Your task to perform on an android device: turn notification dots off Image 0: 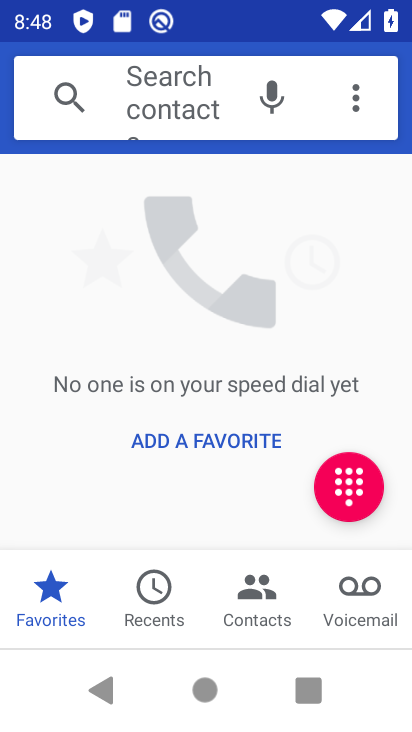
Step 0: press home button
Your task to perform on an android device: turn notification dots off Image 1: 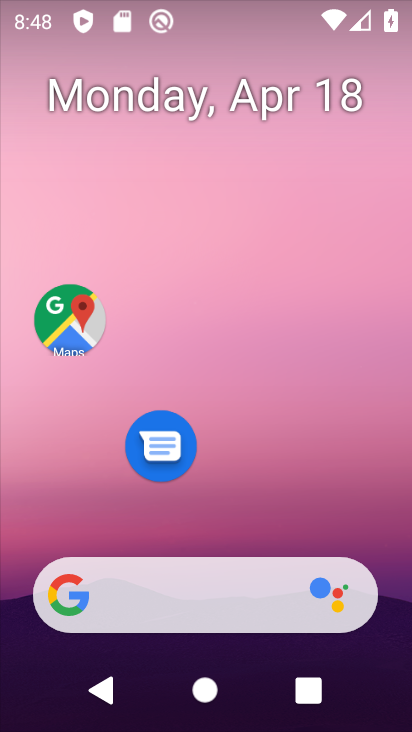
Step 1: drag from (207, 536) to (34, 17)
Your task to perform on an android device: turn notification dots off Image 2: 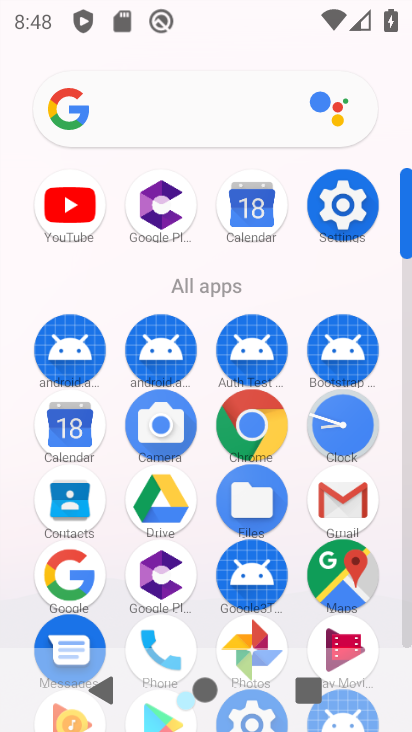
Step 2: click (336, 203)
Your task to perform on an android device: turn notification dots off Image 3: 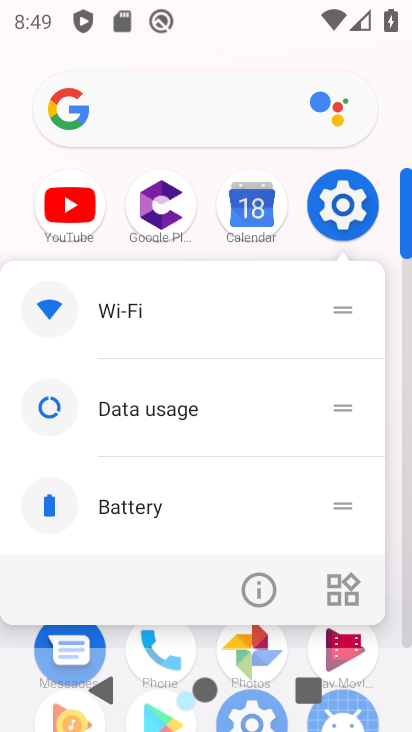
Step 3: click (348, 203)
Your task to perform on an android device: turn notification dots off Image 4: 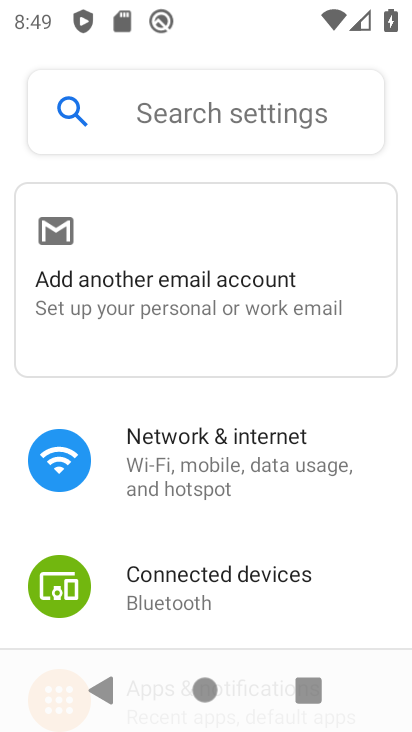
Step 4: drag from (190, 585) to (229, 113)
Your task to perform on an android device: turn notification dots off Image 5: 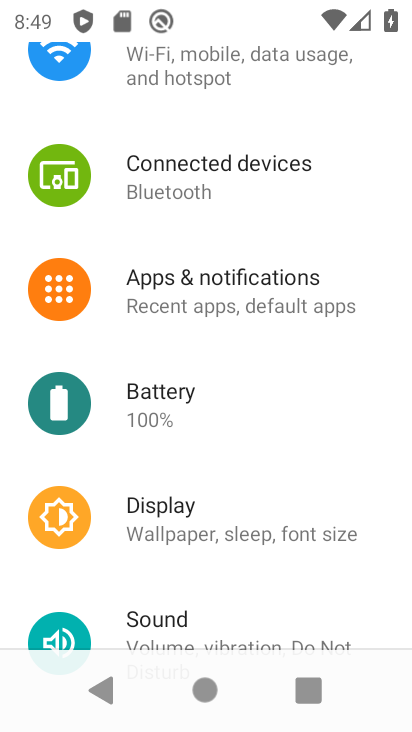
Step 5: click (204, 284)
Your task to perform on an android device: turn notification dots off Image 6: 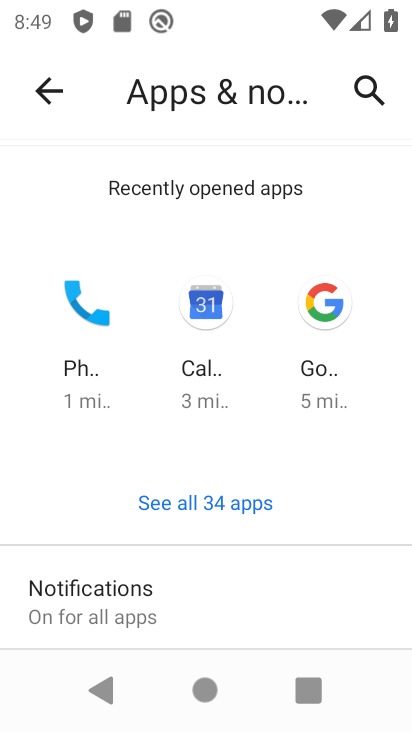
Step 6: click (145, 618)
Your task to perform on an android device: turn notification dots off Image 7: 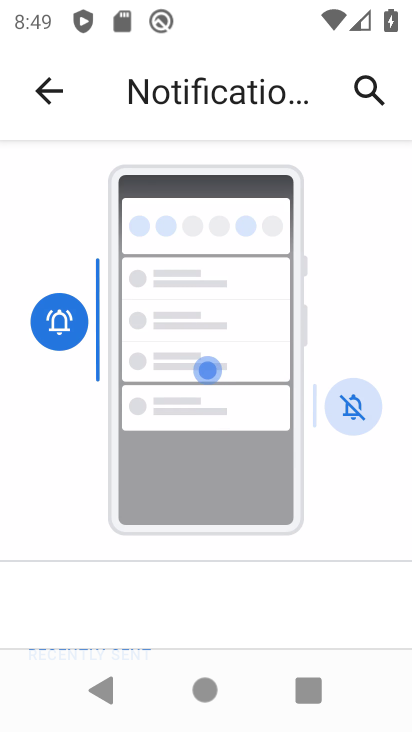
Step 7: drag from (216, 586) to (231, 79)
Your task to perform on an android device: turn notification dots off Image 8: 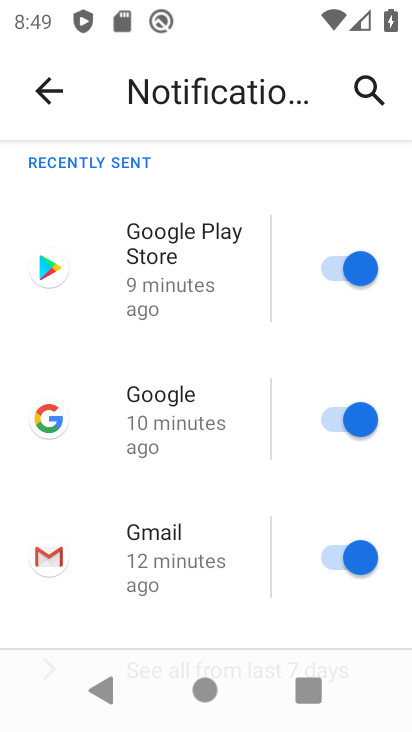
Step 8: drag from (209, 607) to (254, 115)
Your task to perform on an android device: turn notification dots off Image 9: 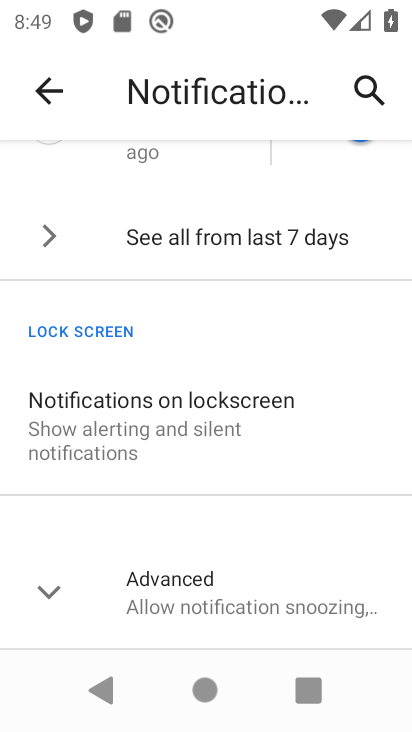
Step 9: click (46, 587)
Your task to perform on an android device: turn notification dots off Image 10: 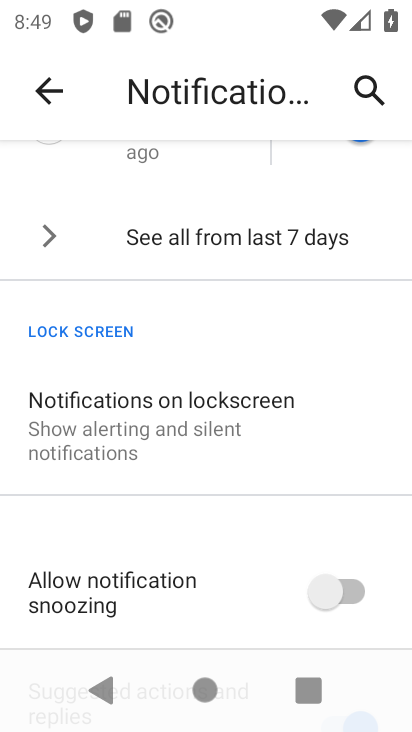
Step 10: drag from (195, 590) to (196, 228)
Your task to perform on an android device: turn notification dots off Image 11: 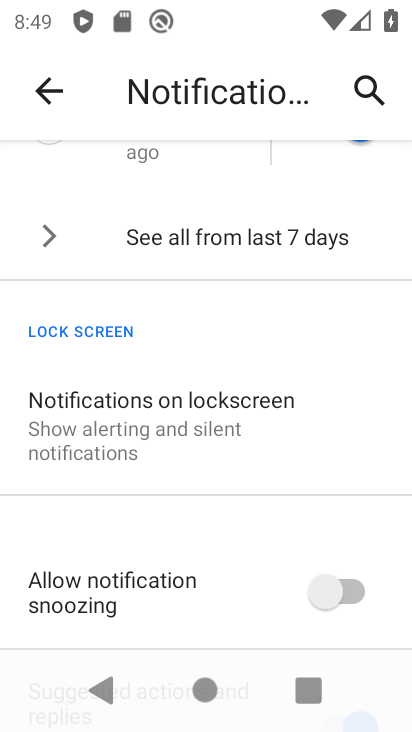
Step 11: drag from (199, 595) to (205, 48)
Your task to perform on an android device: turn notification dots off Image 12: 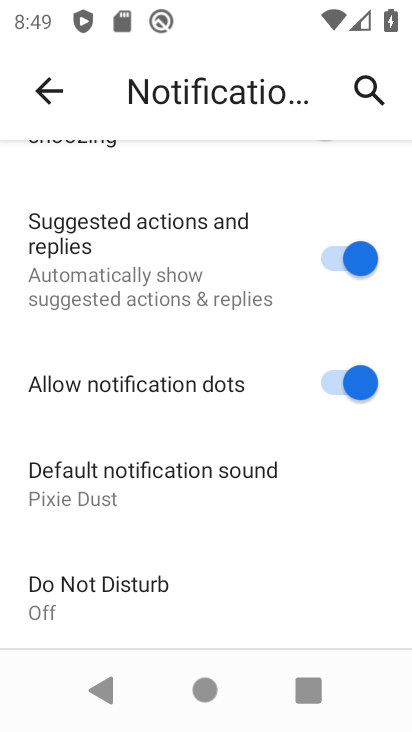
Step 12: click (343, 376)
Your task to perform on an android device: turn notification dots off Image 13: 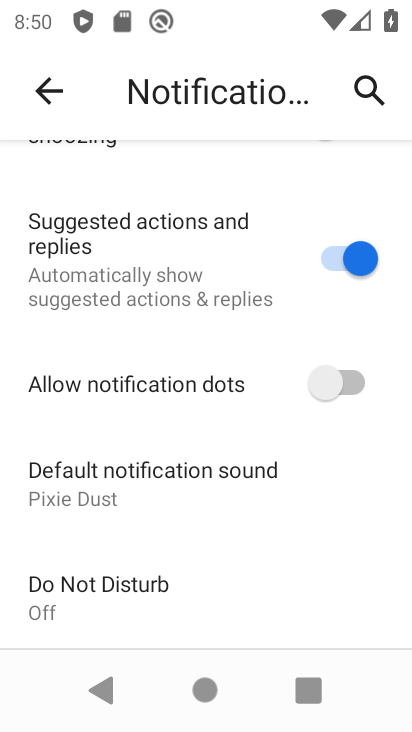
Step 13: task complete